Your task to perform on an android device: toggle sleep mode Image 0: 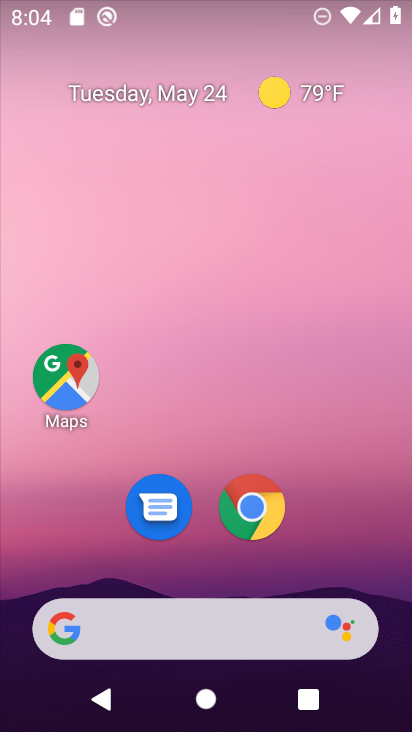
Step 0: drag from (321, 544) to (227, 4)
Your task to perform on an android device: toggle sleep mode Image 1: 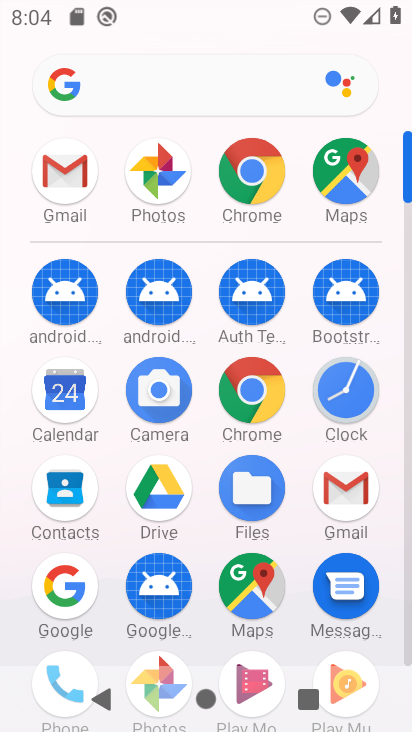
Step 1: drag from (10, 638) to (28, 321)
Your task to perform on an android device: toggle sleep mode Image 2: 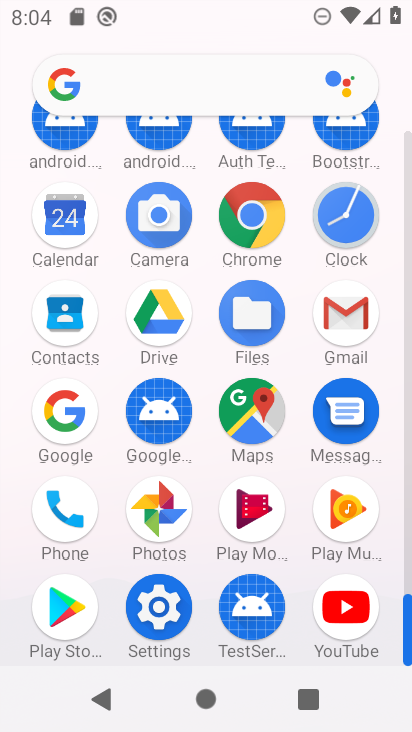
Step 2: click (157, 609)
Your task to perform on an android device: toggle sleep mode Image 3: 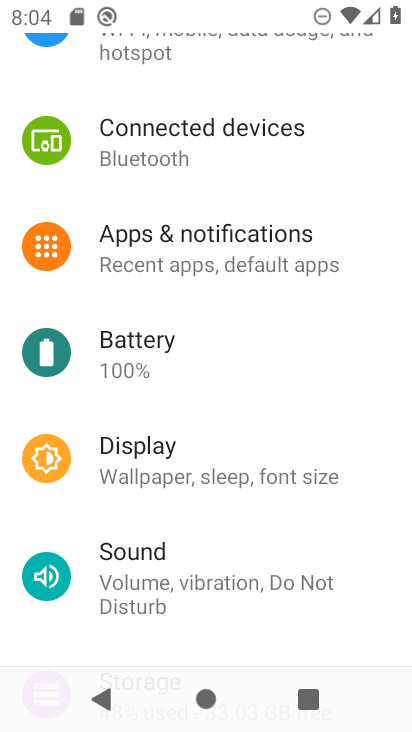
Step 3: drag from (308, 198) to (312, 561)
Your task to perform on an android device: toggle sleep mode Image 4: 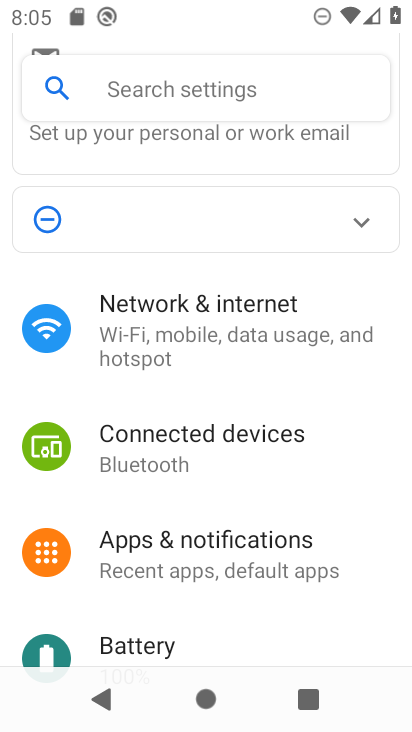
Step 4: click (226, 331)
Your task to perform on an android device: toggle sleep mode Image 5: 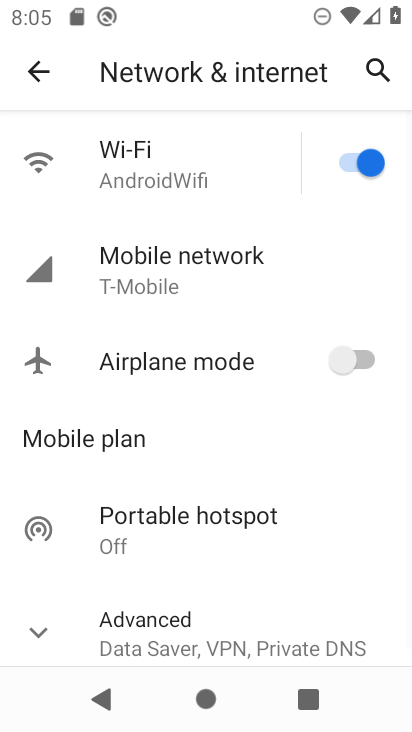
Step 5: click (37, 625)
Your task to perform on an android device: toggle sleep mode Image 6: 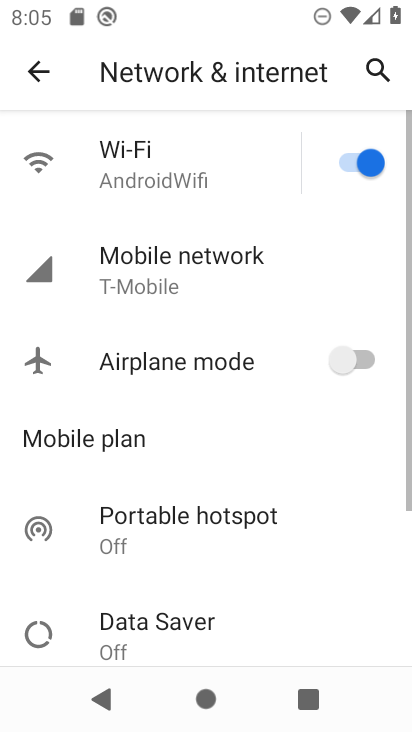
Step 6: task complete